Your task to perform on an android device: Go to Reddit.com Image 0: 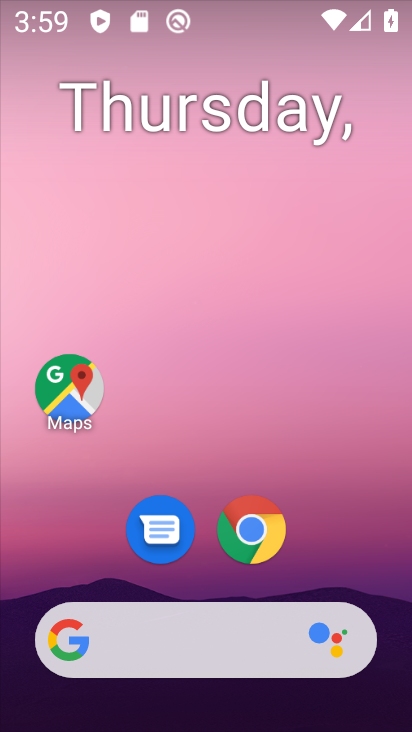
Step 0: click (261, 526)
Your task to perform on an android device: Go to Reddit.com Image 1: 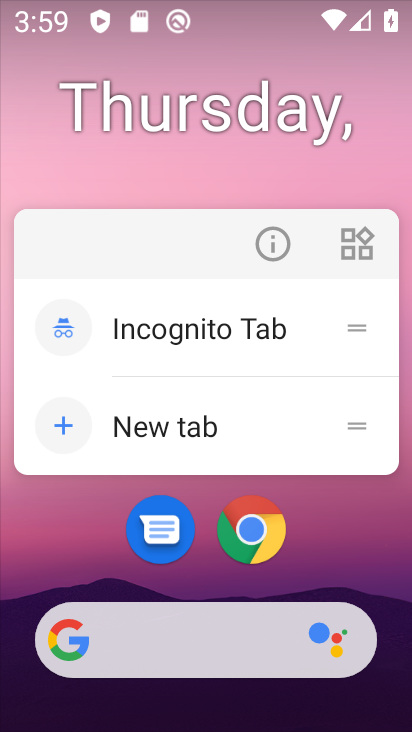
Step 1: click (250, 535)
Your task to perform on an android device: Go to Reddit.com Image 2: 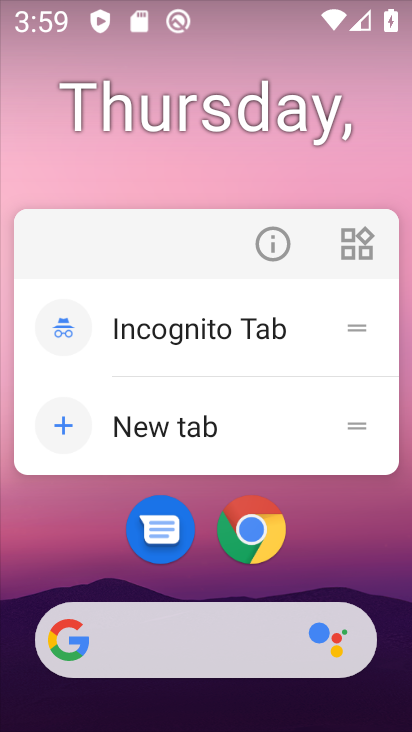
Step 2: click (250, 535)
Your task to perform on an android device: Go to Reddit.com Image 3: 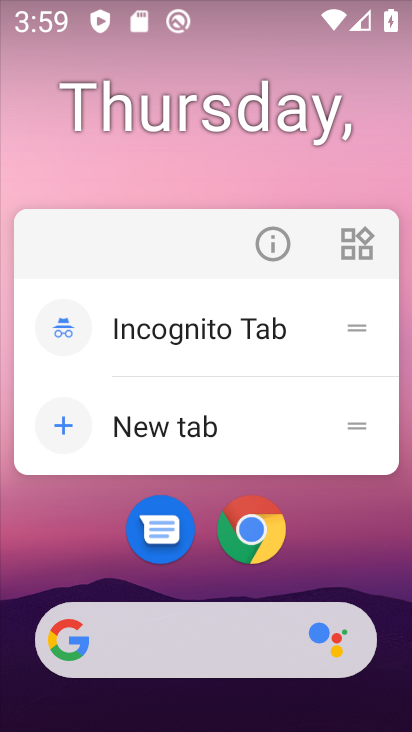
Step 3: click (250, 535)
Your task to perform on an android device: Go to Reddit.com Image 4: 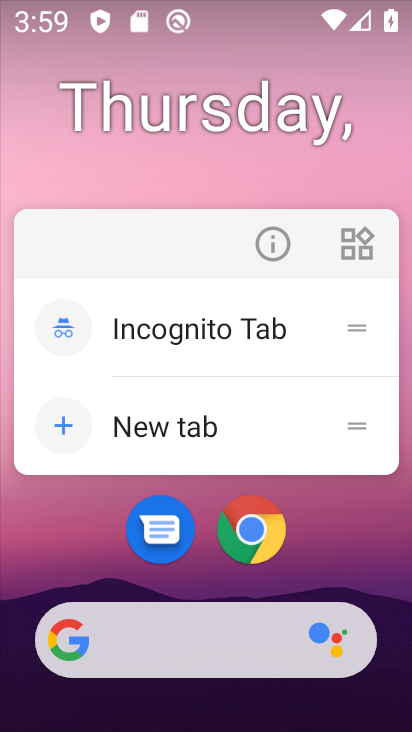
Step 4: click (250, 535)
Your task to perform on an android device: Go to Reddit.com Image 5: 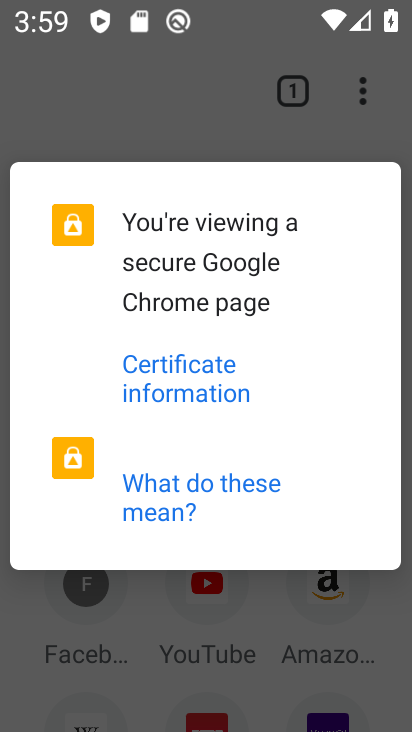
Step 5: click (167, 110)
Your task to perform on an android device: Go to Reddit.com Image 6: 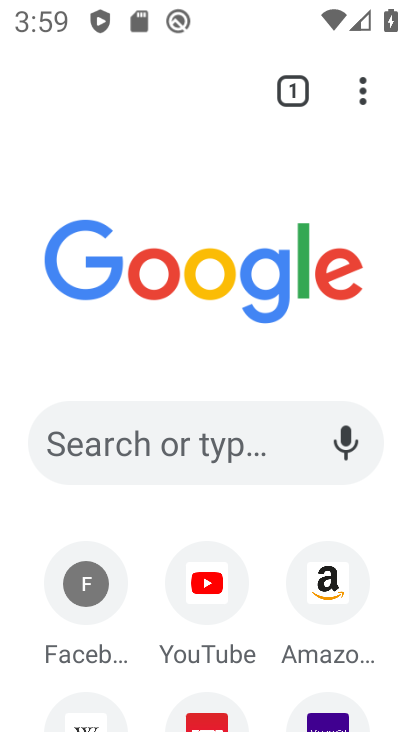
Step 6: drag from (248, 685) to (248, 537)
Your task to perform on an android device: Go to Reddit.com Image 7: 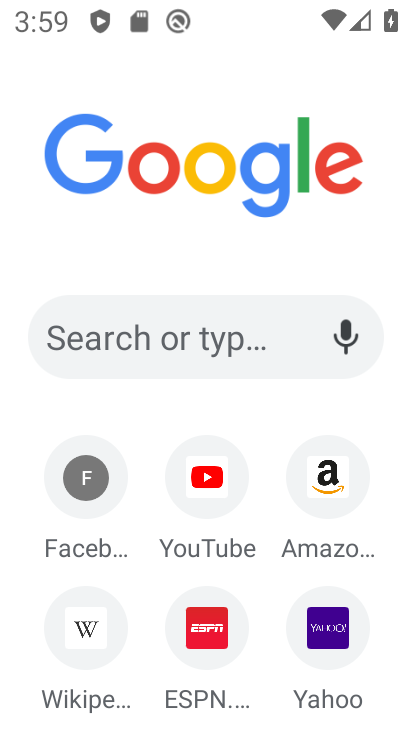
Step 7: click (137, 347)
Your task to perform on an android device: Go to Reddit.com Image 8: 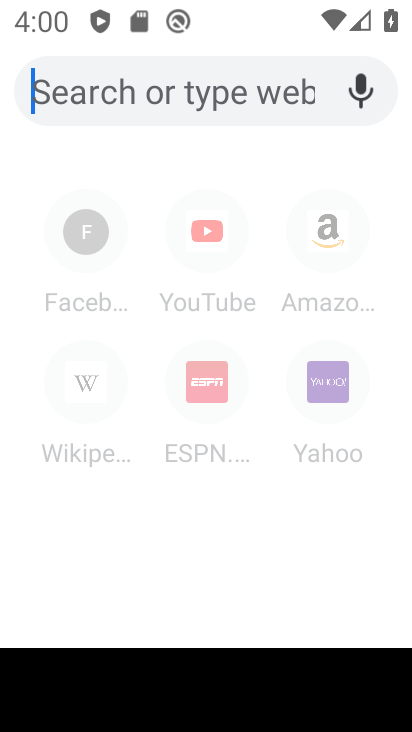
Step 8: type "reddit.com"
Your task to perform on an android device: Go to Reddit.com Image 9: 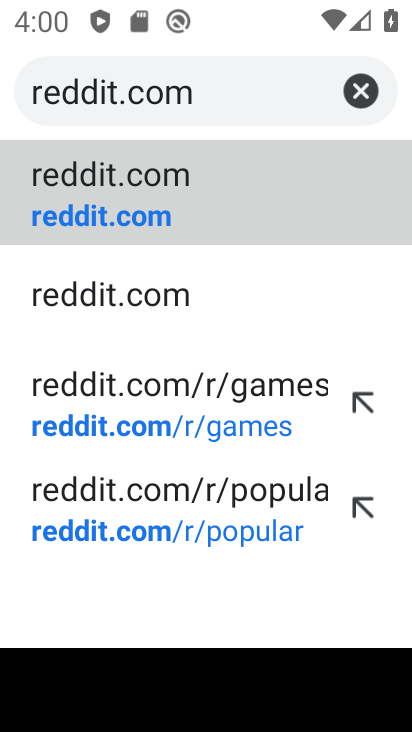
Step 9: click (126, 212)
Your task to perform on an android device: Go to Reddit.com Image 10: 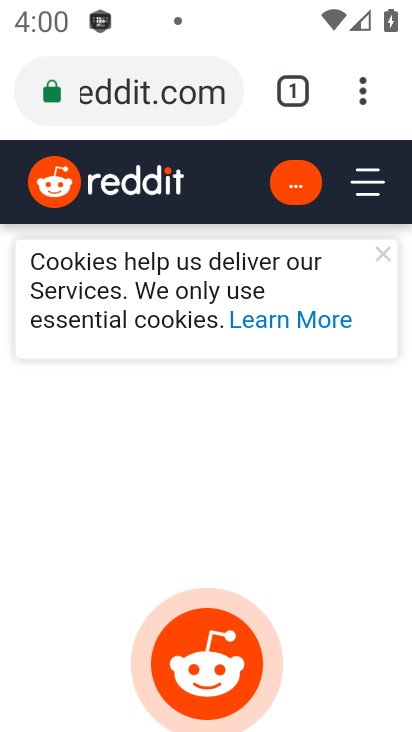
Step 10: task complete